Your task to perform on an android device: open app "Google Calendar" Image 0: 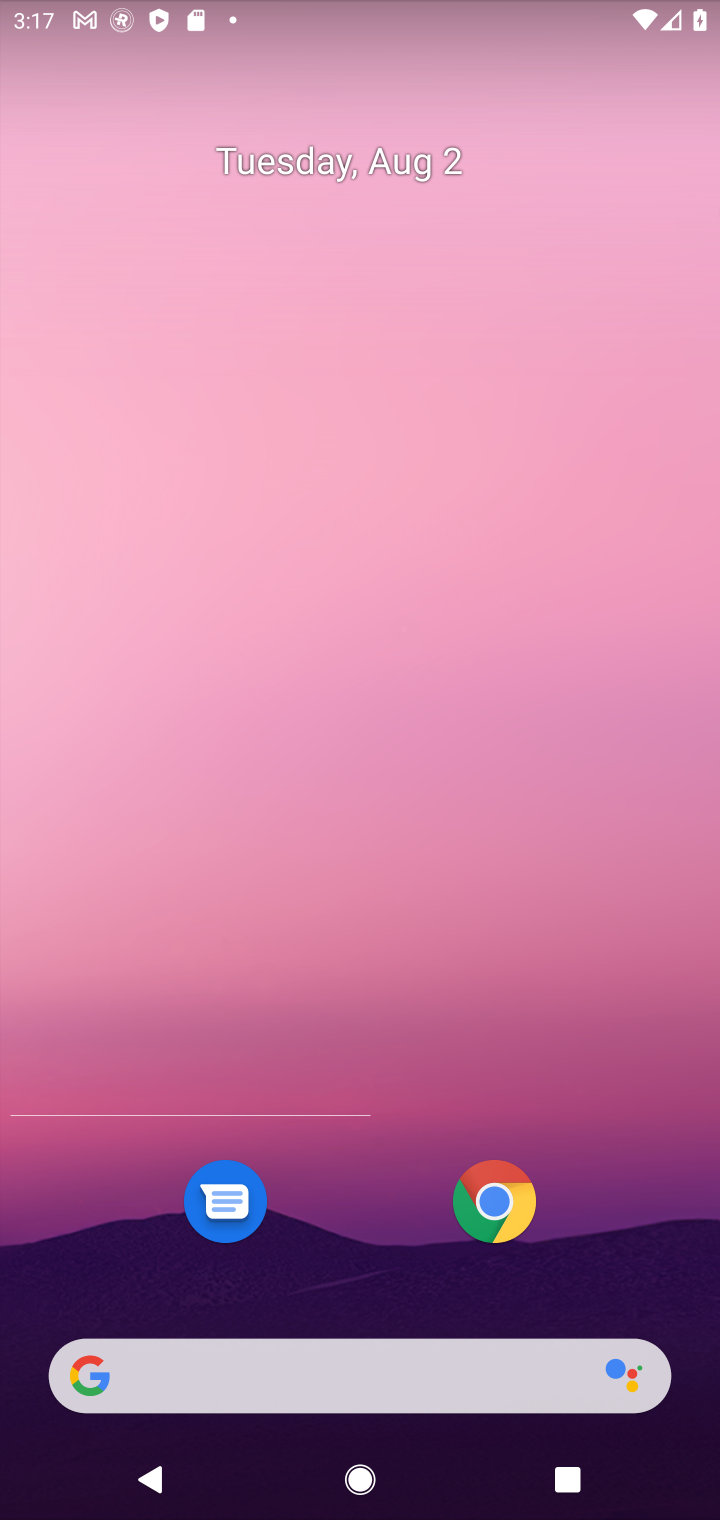
Step 0: drag from (393, 23) to (222, 1)
Your task to perform on an android device: open app "Google Calendar" Image 1: 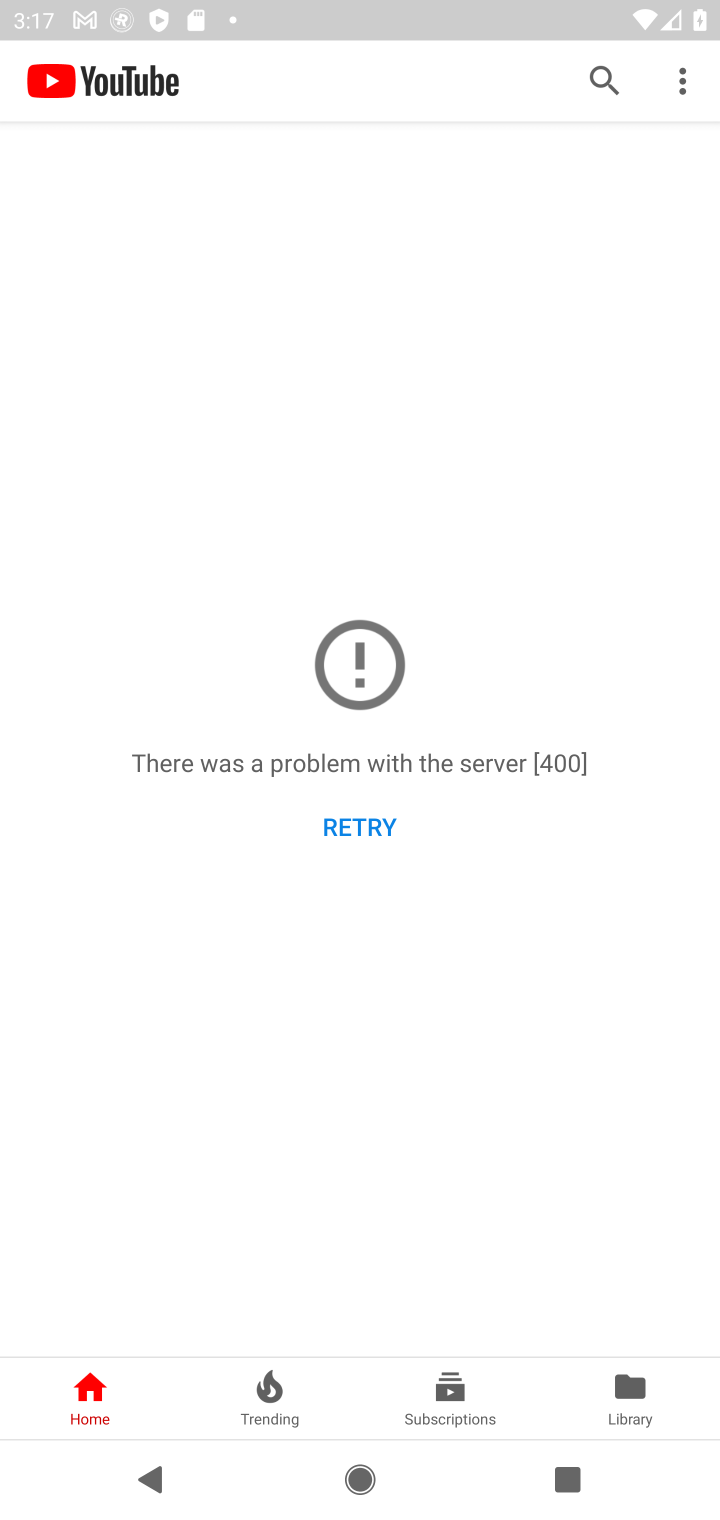
Step 1: press home button
Your task to perform on an android device: open app "Google Calendar" Image 2: 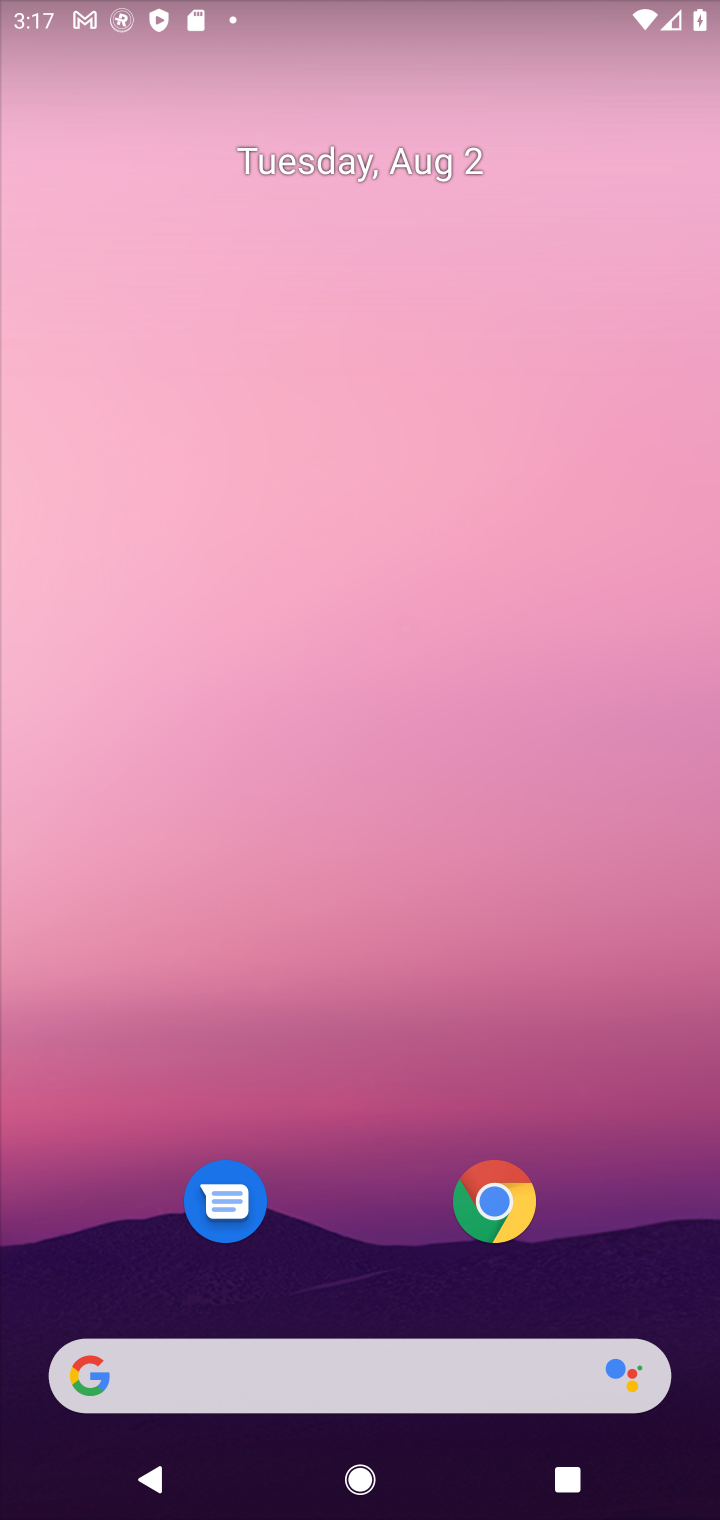
Step 2: drag from (355, 1295) to (201, 49)
Your task to perform on an android device: open app "Google Calendar" Image 3: 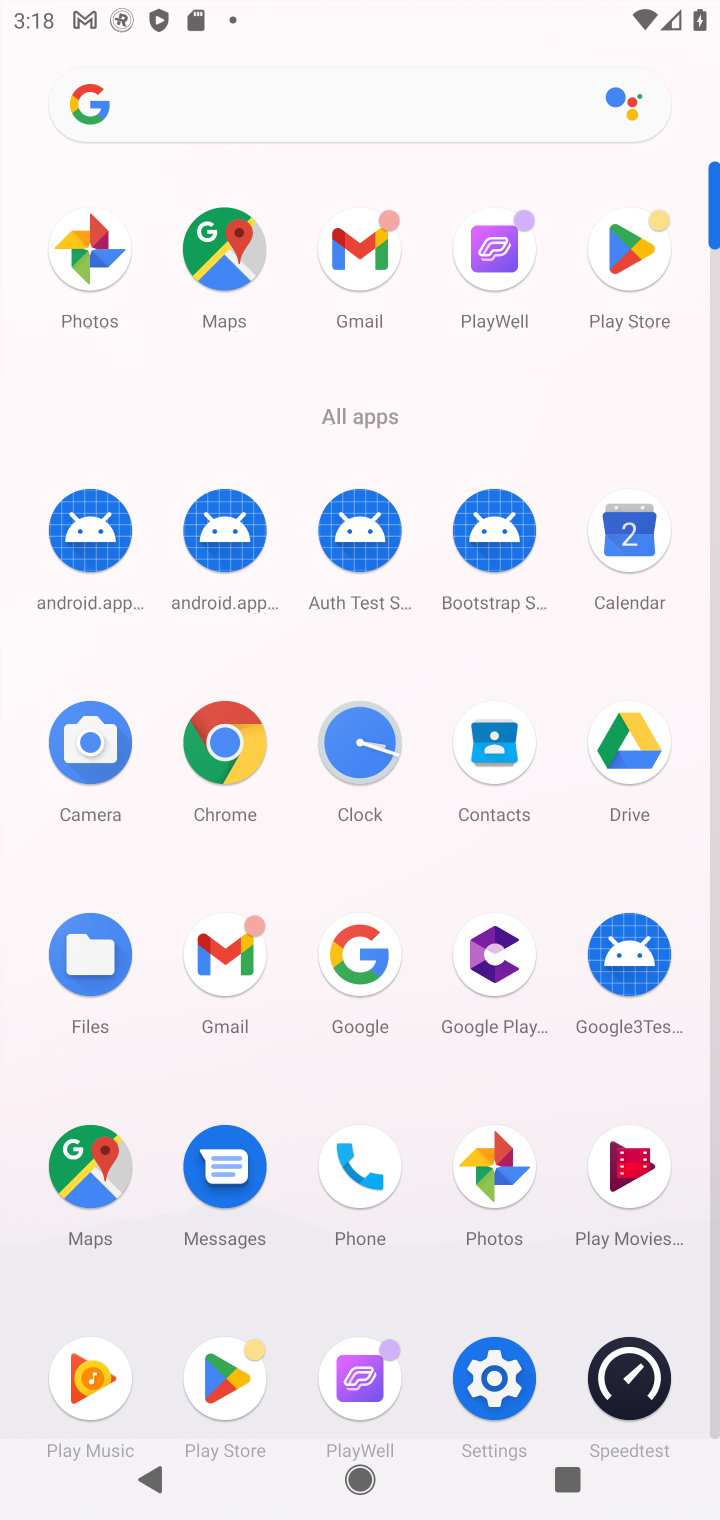
Step 3: click (618, 237)
Your task to perform on an android device: open app "Google Calendar" Image 4: 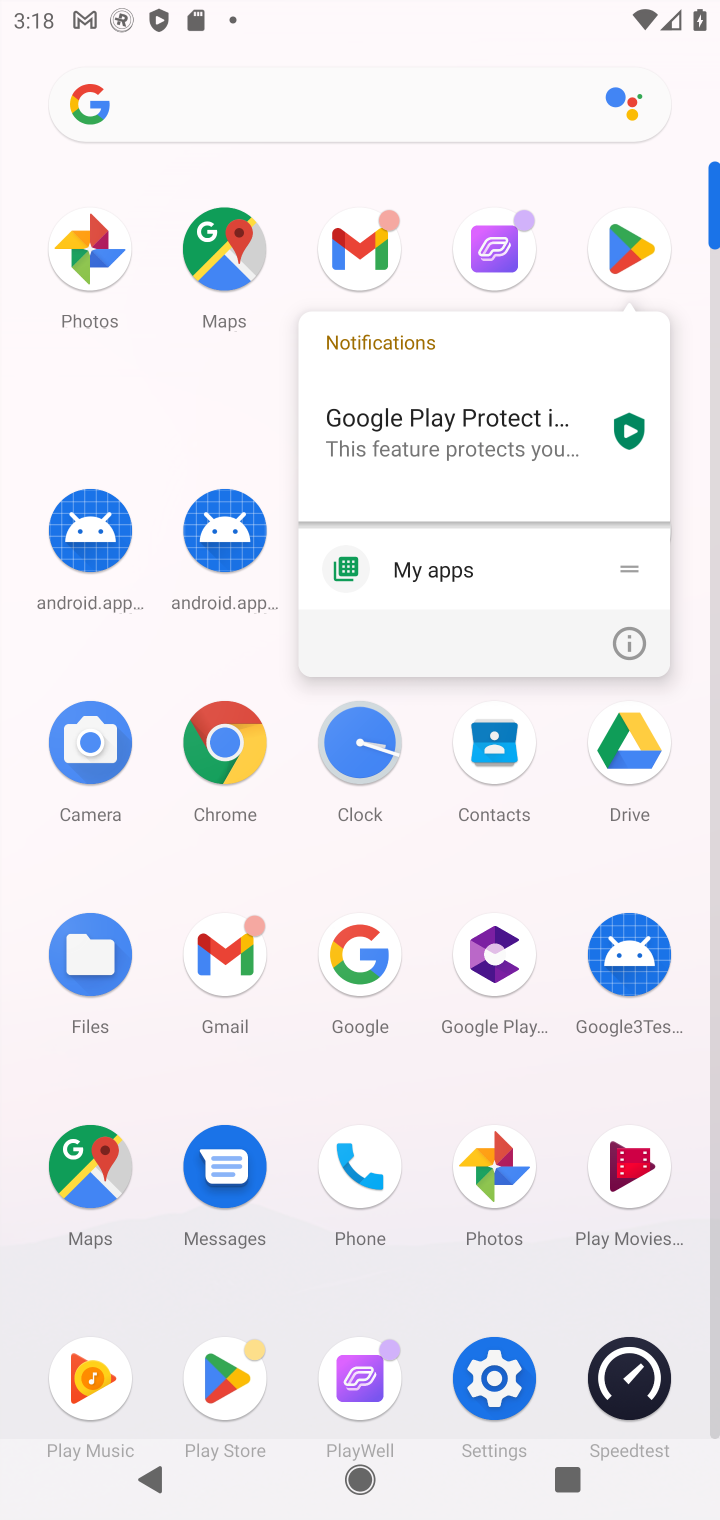
Step 4: click (618, 237)
Your task to perform on an android device: open app "Google Calendar" Image 5: 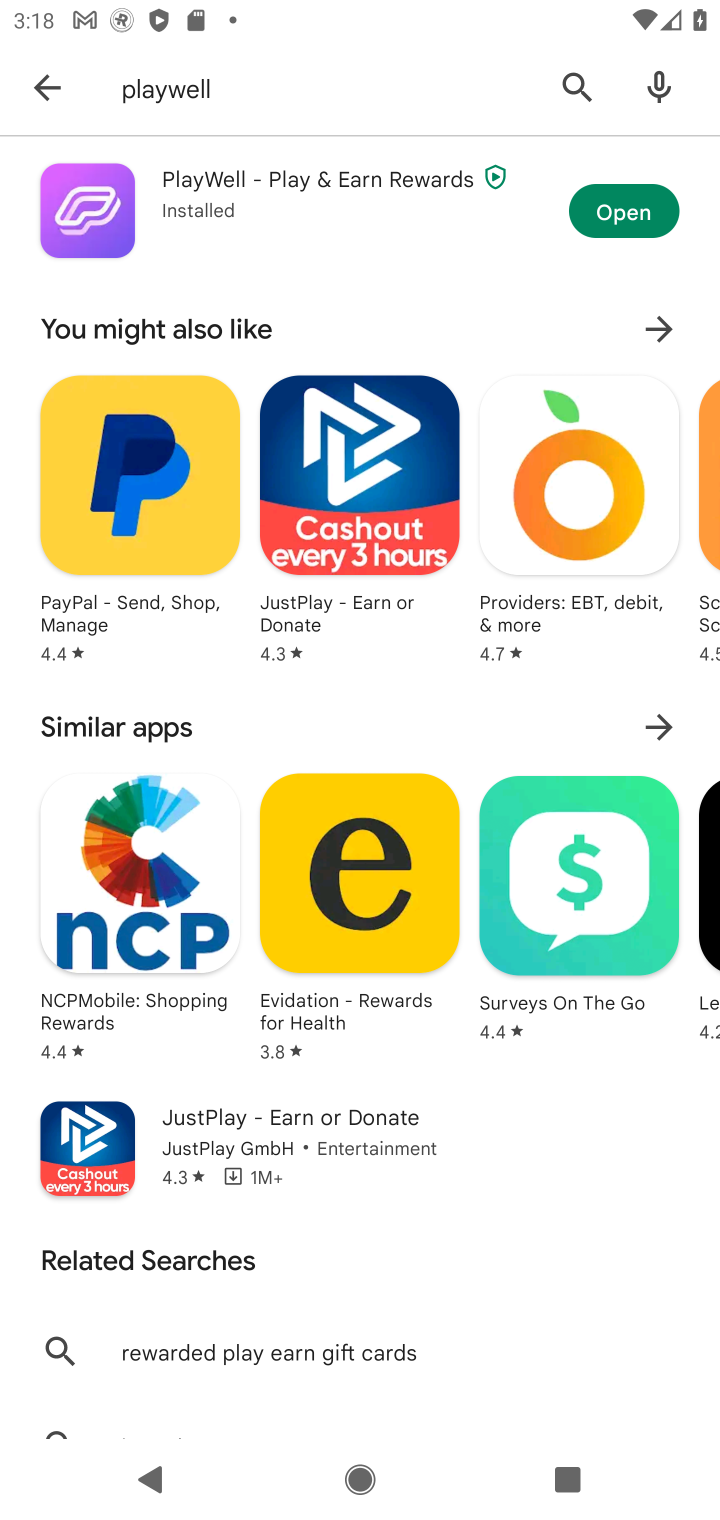
Step 5: click (560, 63)
Your task to perform on an android device: open app "Google Calendar" Image 6: 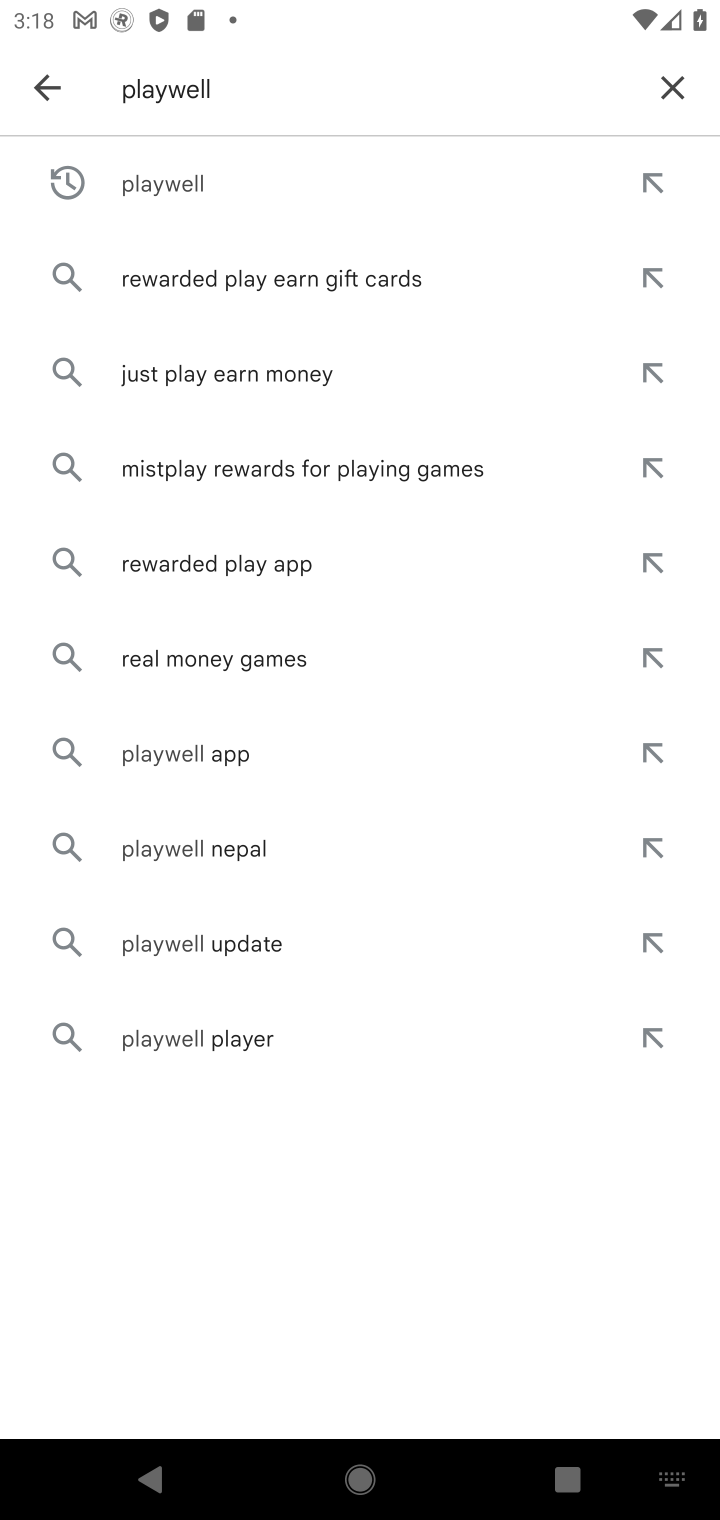
Step 6: click (665, 97)
Your task to perform on an android device: open app "Google Calendar" Image 7: 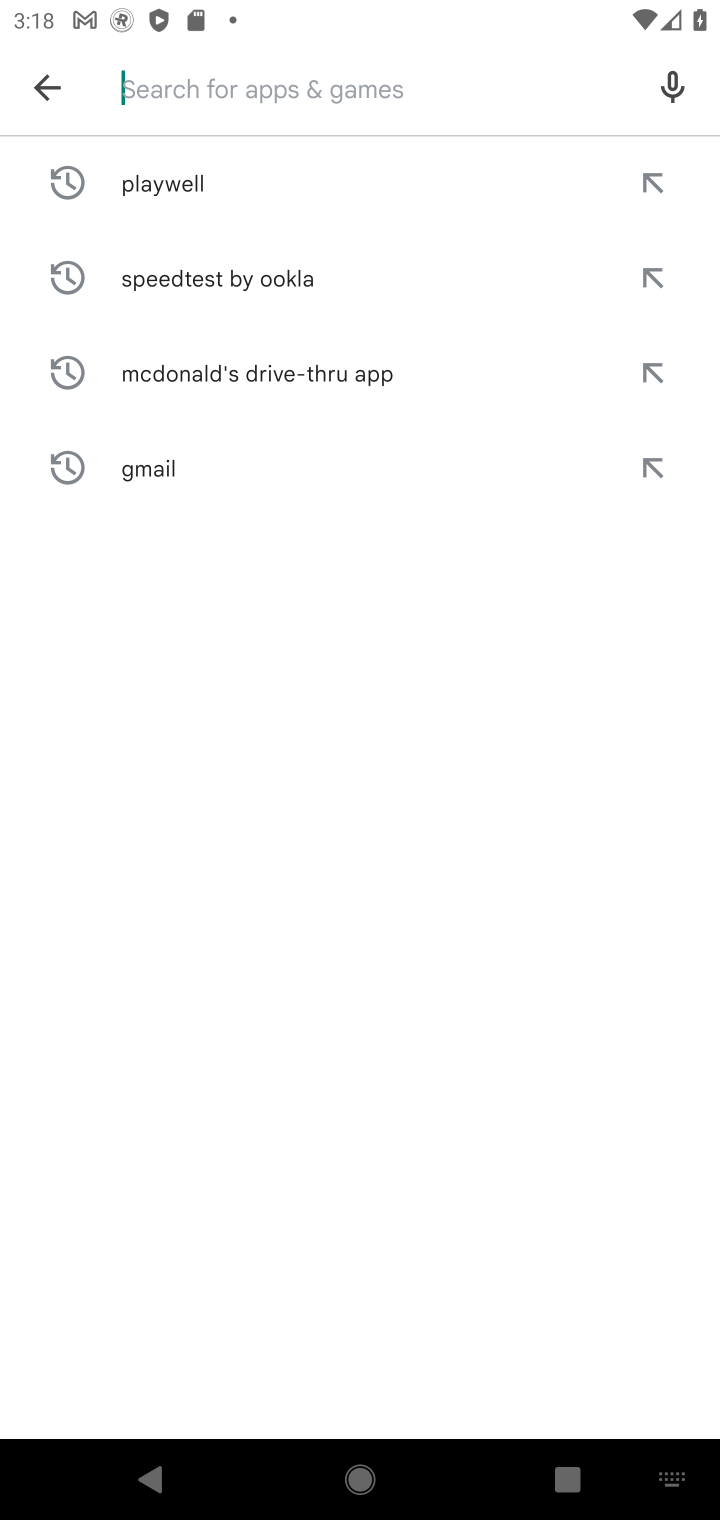
Step 7: type "Google Calendar"
Your task to perform on an android device: open app "Google Calendar" Image 8: 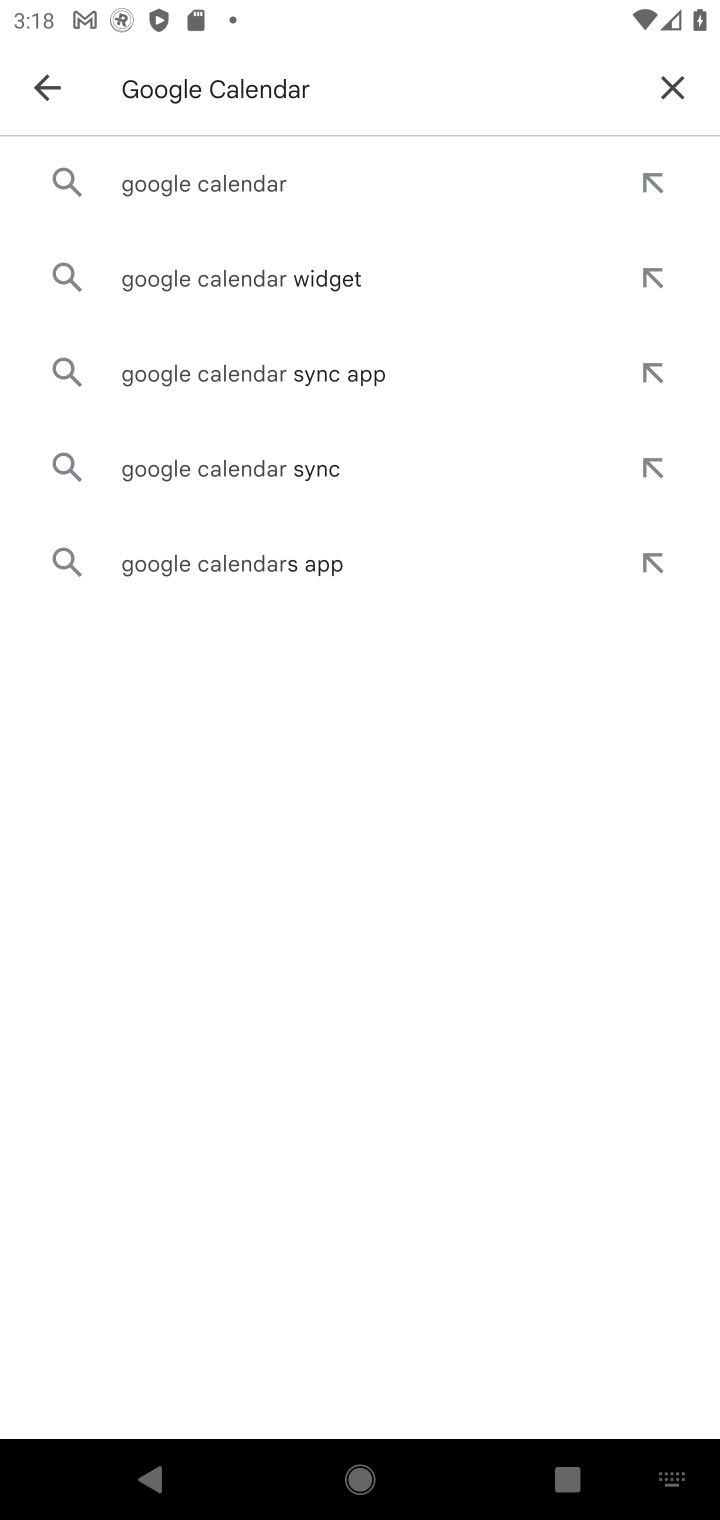
Step 8: click (238, 171)
Your task to perform on an android device: open app "Google Calendar" Image 9: 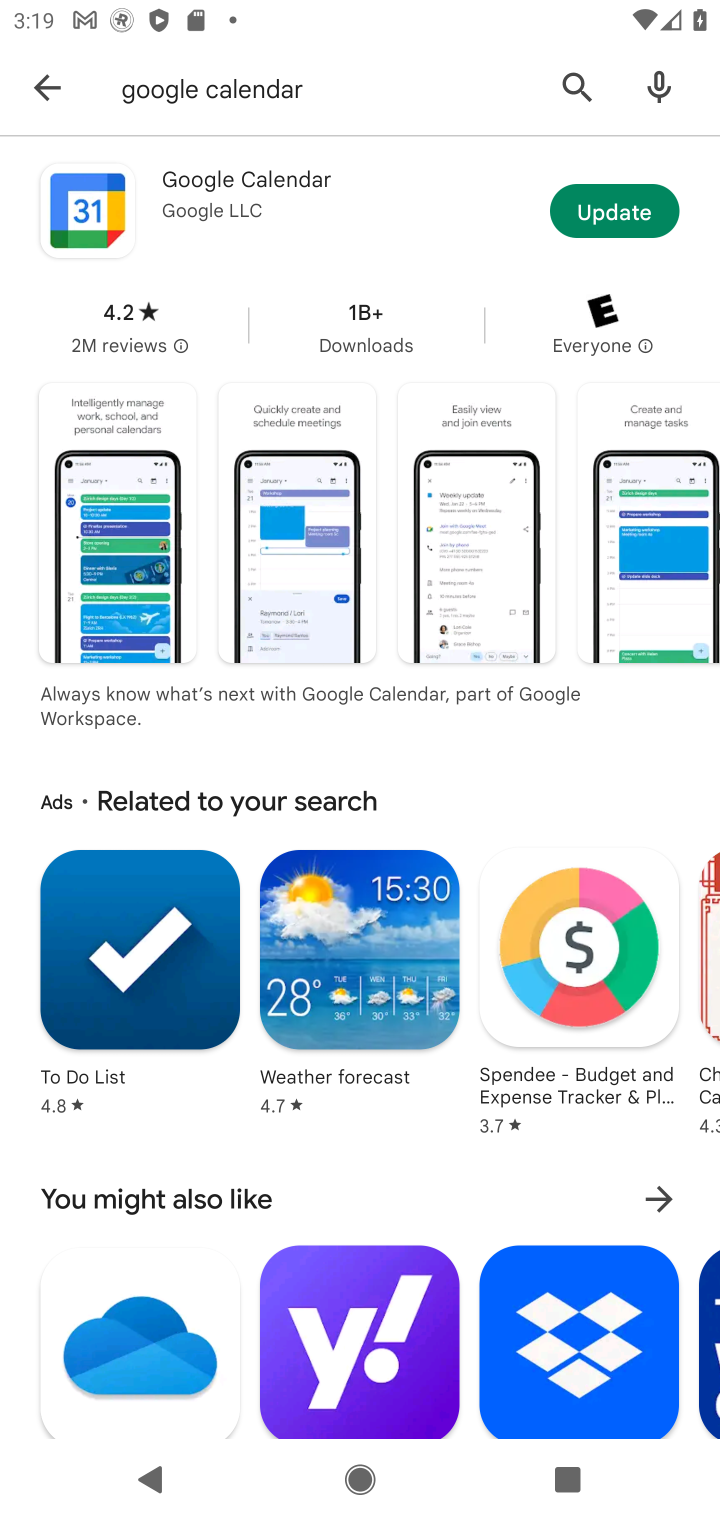
Step 9: click (622, 203)
Your task to perform on an android device: open app "Google Calendar" Image 10: 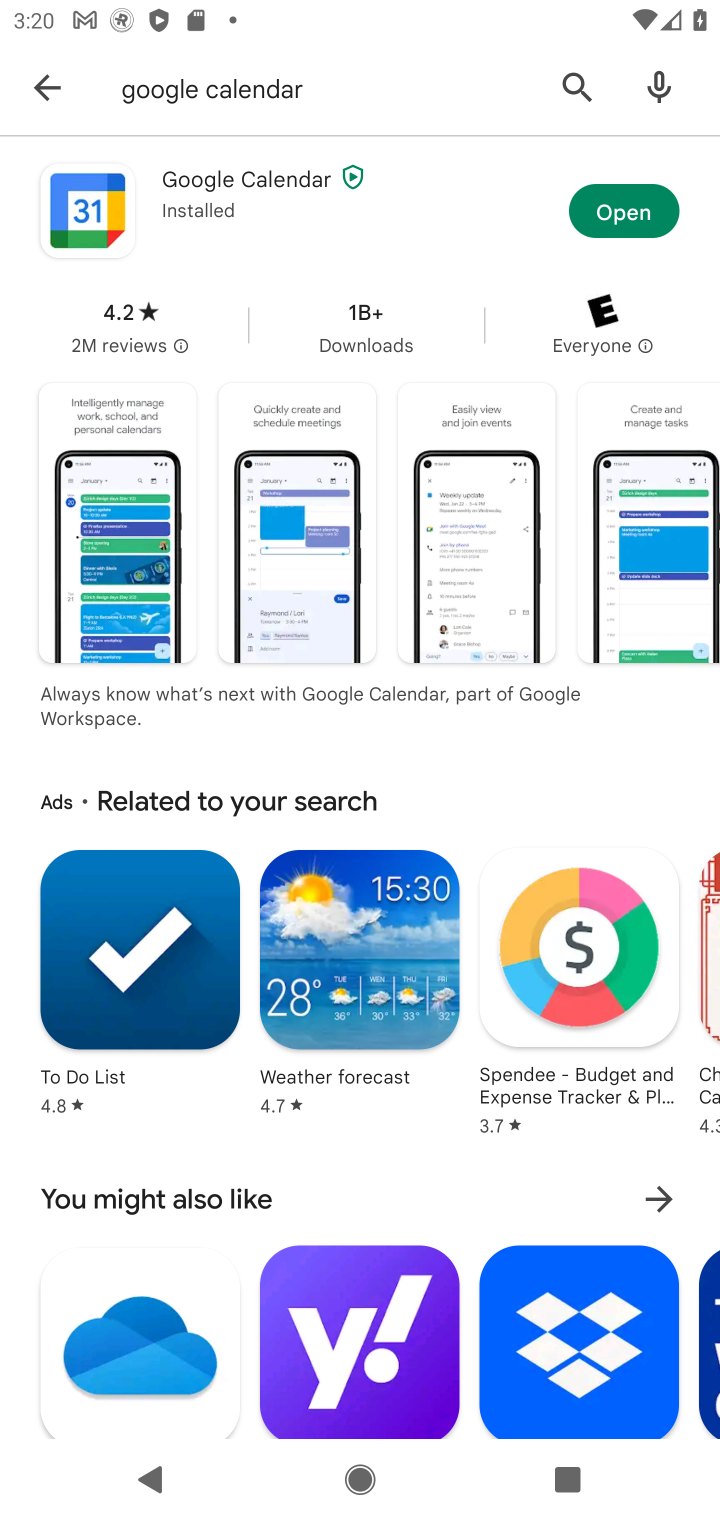
Step 10: click (630, 215)
Your task to perform on an android device: open app "Google Calendar" Image 11: 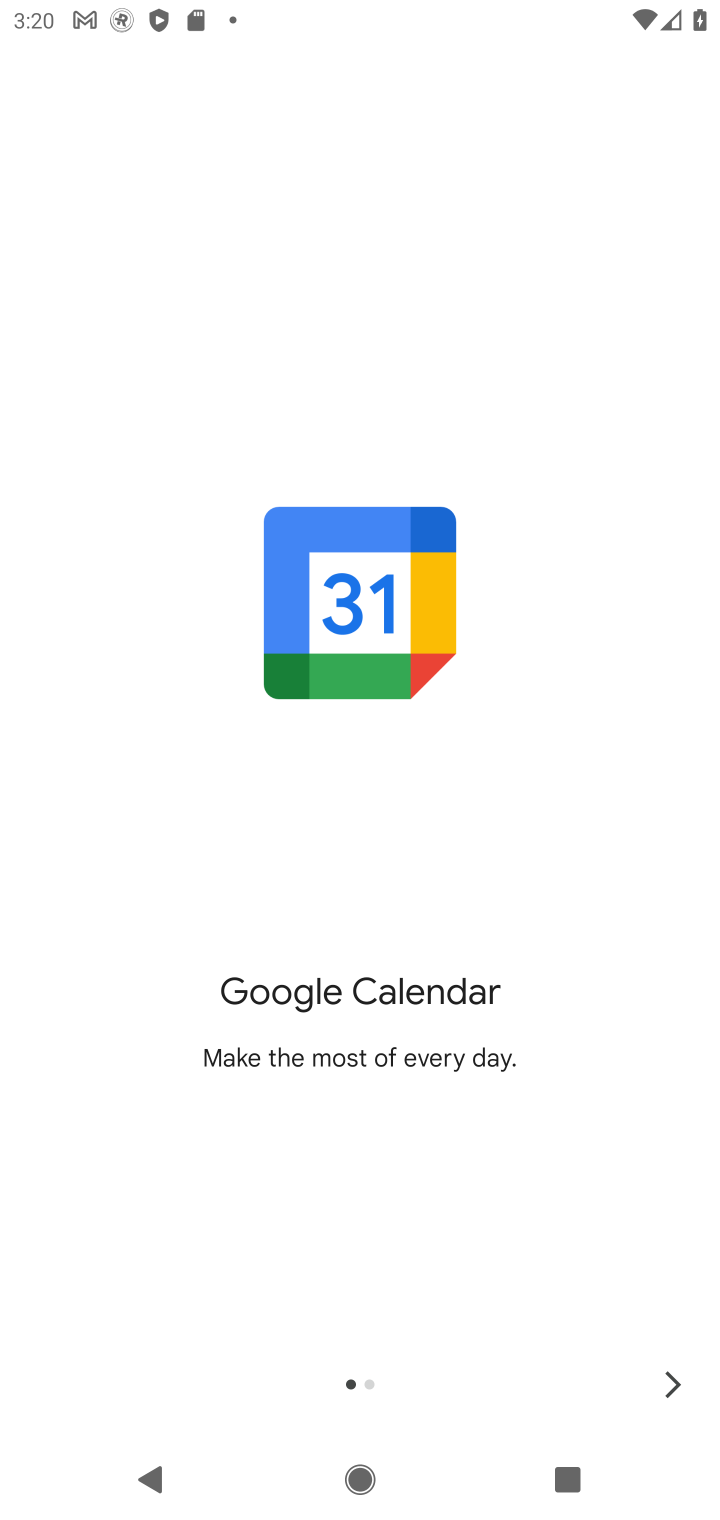
Step 11: click (665, 1381)
Your task to perform on an android device: open app "Google Calendar" Image 12: 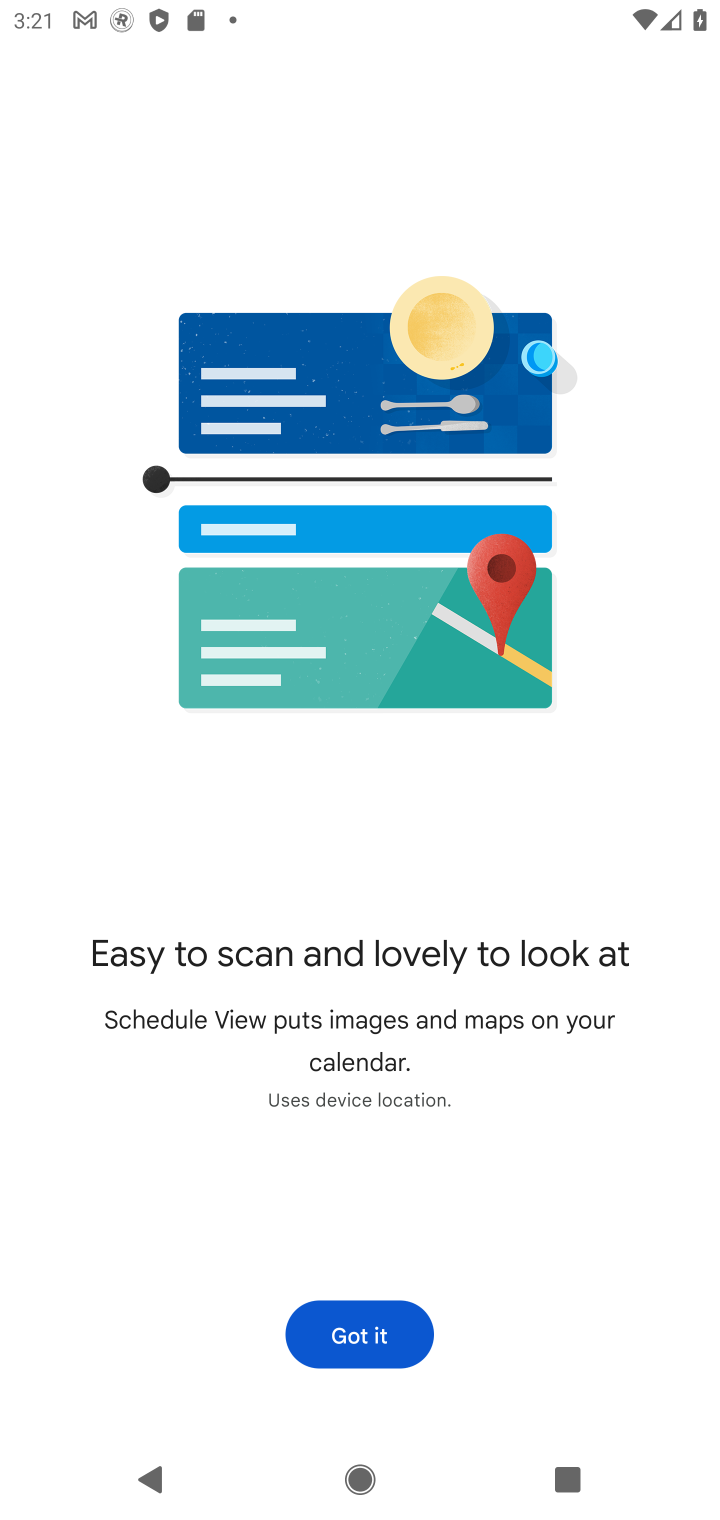
Step 12: click (390, 1332)
Your task to perform on an android device: open app "Google Calendar" Image 13: 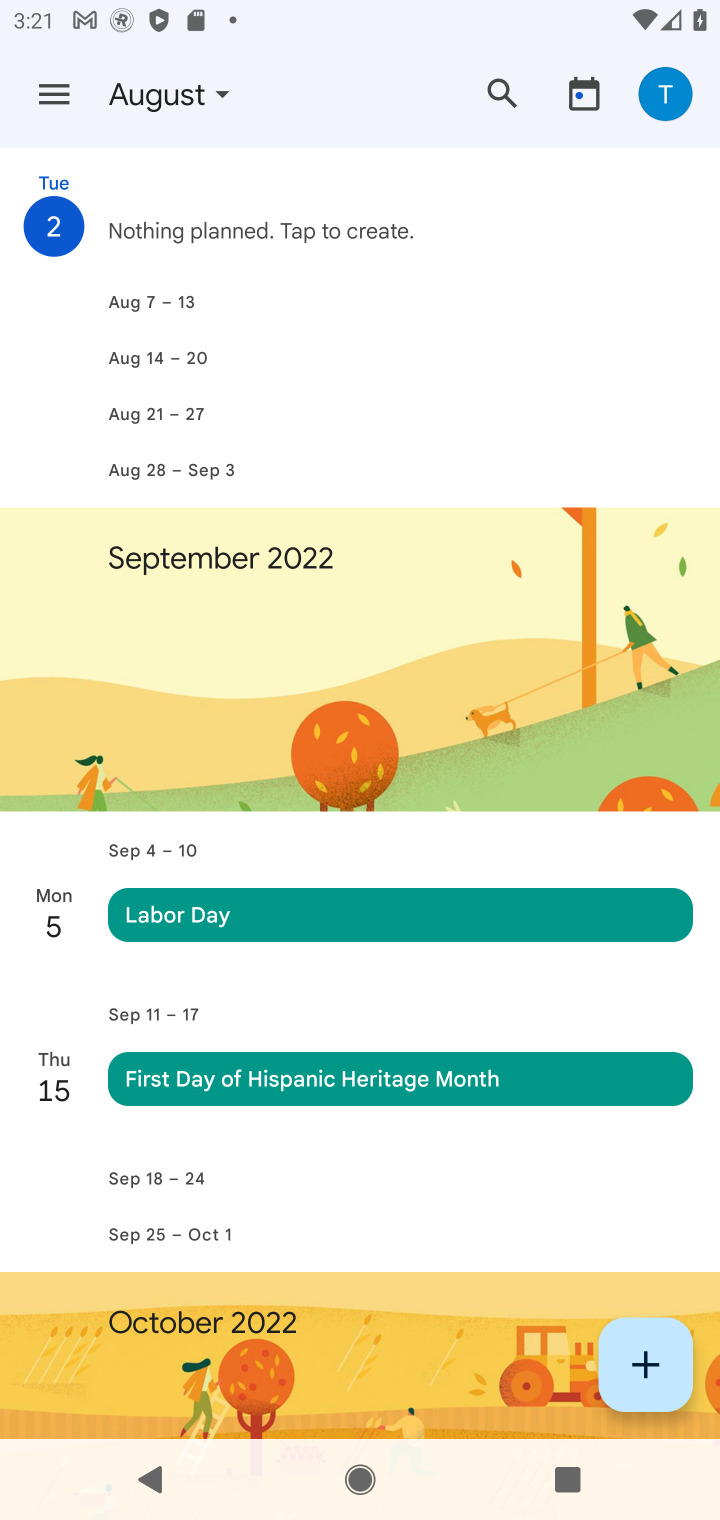
Step 13: task complete